Your task to perform on an android device: search for starred emails in the gmail app Image 0: 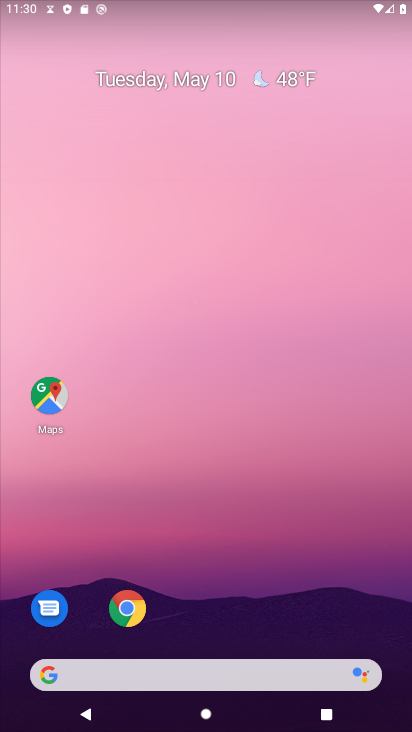
Step 0: drag from (222, 591) to (233, 167)
Your task to perform on an android device: search for starred emails in the gmail app Image 1: 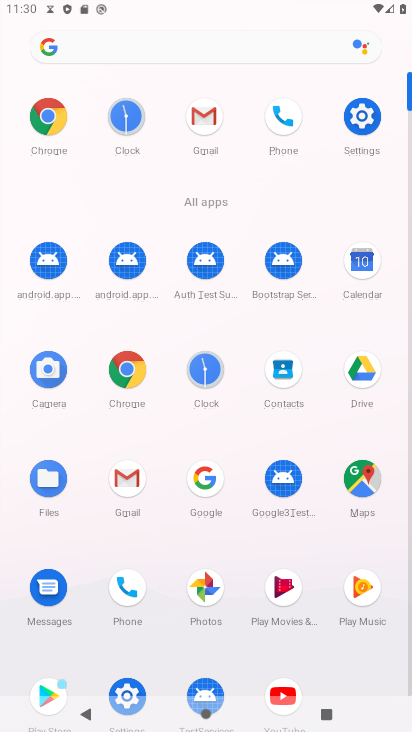
Step 1: click (206, 142)
Your task to perform on an android device: search for starred emails in the gmail app Image 2: 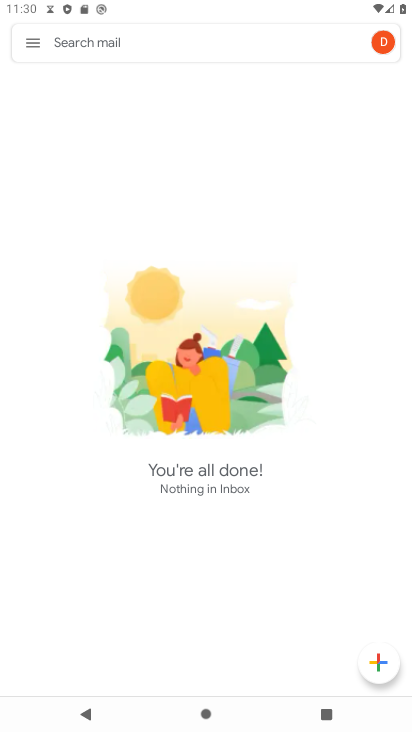
Step 2: click (35, 47)
Your task to perform on an android device: search for starred emails in the gmail app Image 3: 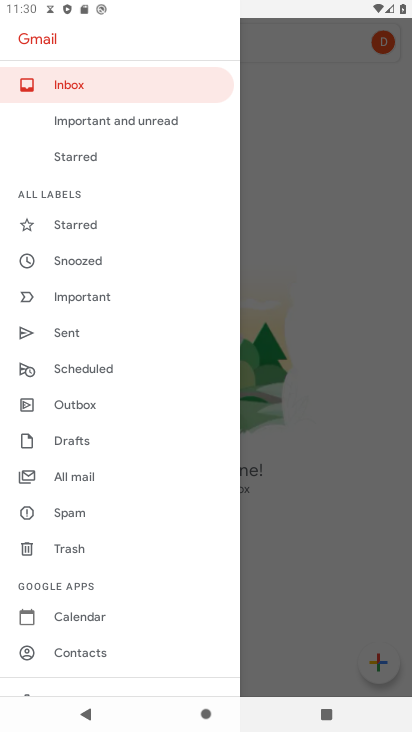
Step 3: click (69, 157)
Your task to perform on an android device: search for starred emails in the gmail app Image 4: 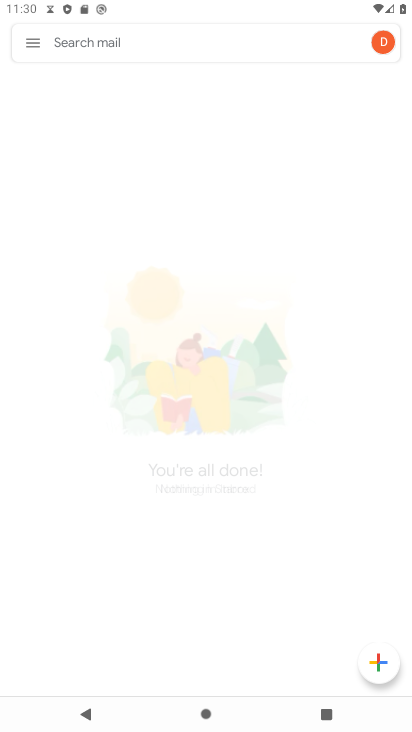
Step 4: click (69, 157)
Your task to perform on an android device: search for starred emails in the gmail app Image 5: 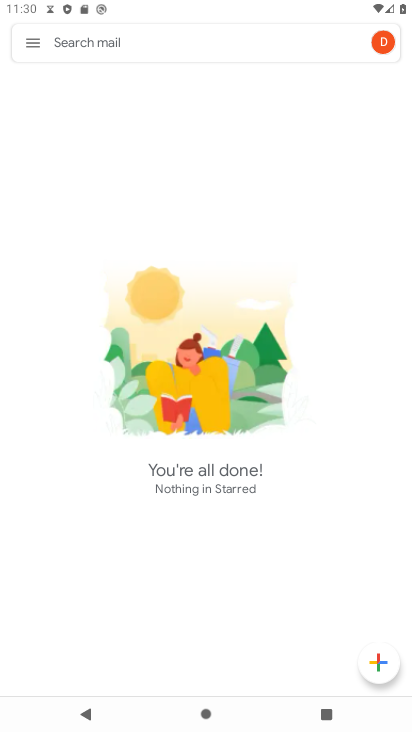
Step 5: click (32, 38)
Your task to perform on an android device: search for starred emails in the gmail app Image 6: 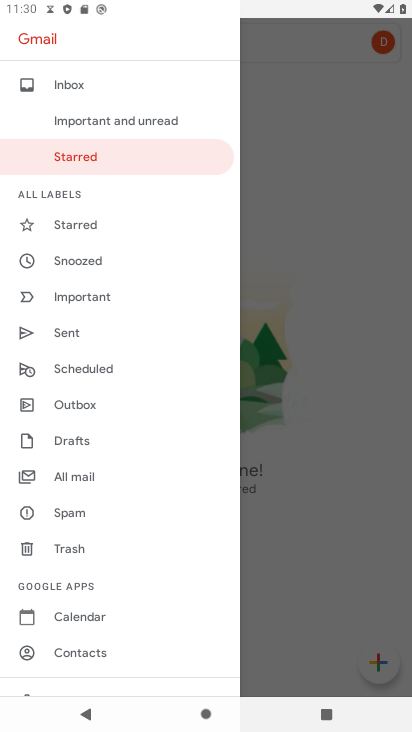
Step 6: click (70, 230)
Your task to perform on an android device: search for starred emails in the gmail app Image 7: 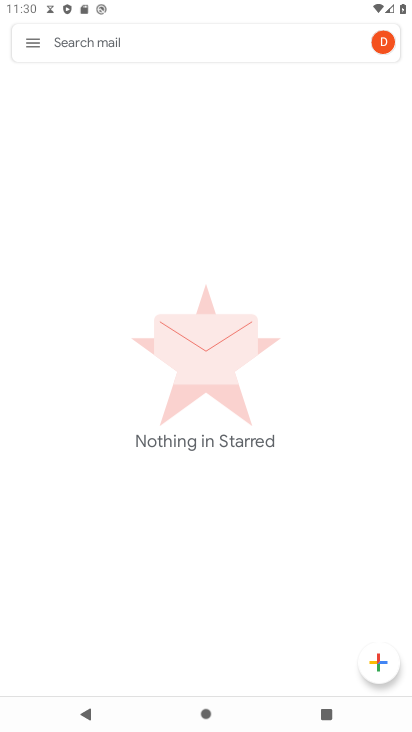
Step 7: task complete